Your task to perform on an android device: create a new album in the google photos Image 0: 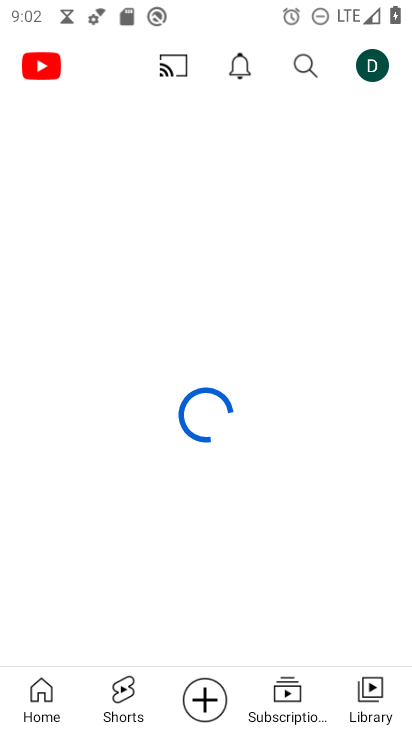
Step 0: press home button
Your task to perform on an android device: create a new album in the google photos Image 1: 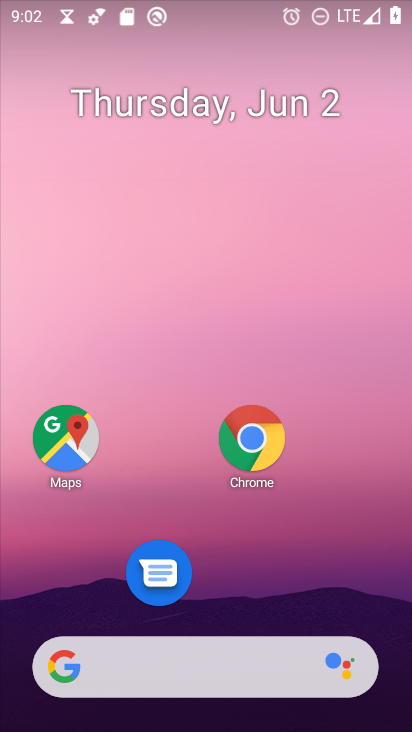
Step 1: drag from (142, 662) to (271, 131)
Your task to perform on an android device: create a new album in the google photos Image 2: 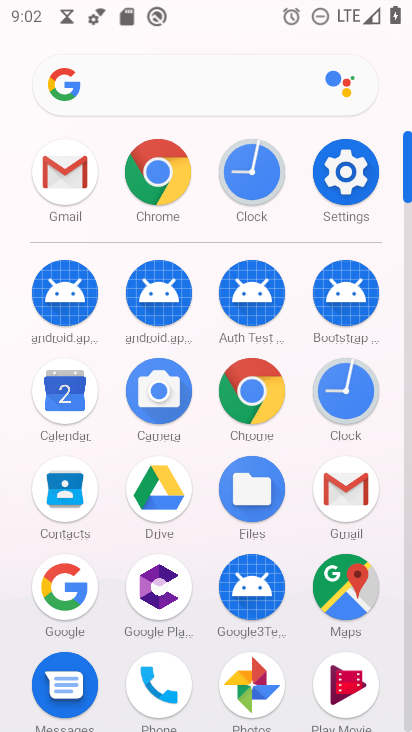
Step 2: click (261, 678)
Your task to perform on an android device: create a new album in the google photos Image 3: 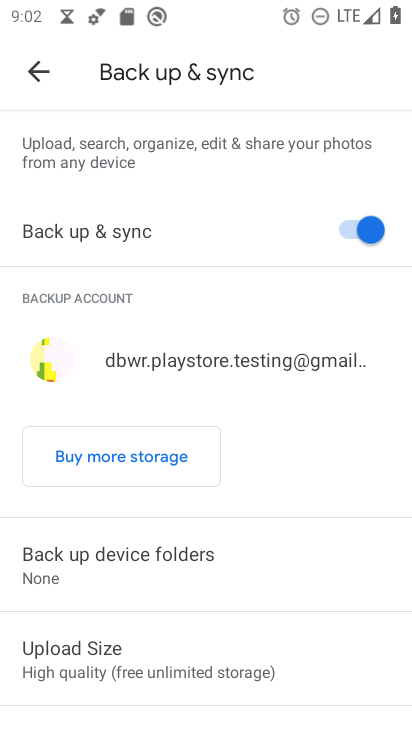
Step 3: click (40, 77)
Your task to perform on an android device: create a new album in the google photos Image 4: 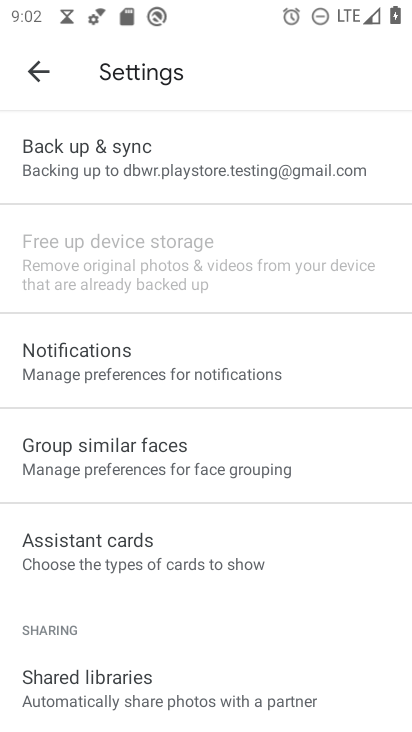
Step 4: click (40, 77)
Your task to perform on an android device: create a new album in the google photos Image 5: 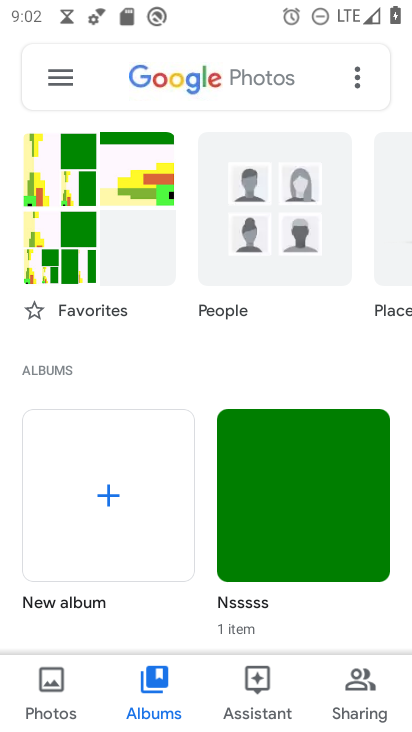
Step 5: click (105, 490)
Your task to perform on an android device: create a new album in the google photos Image 6: 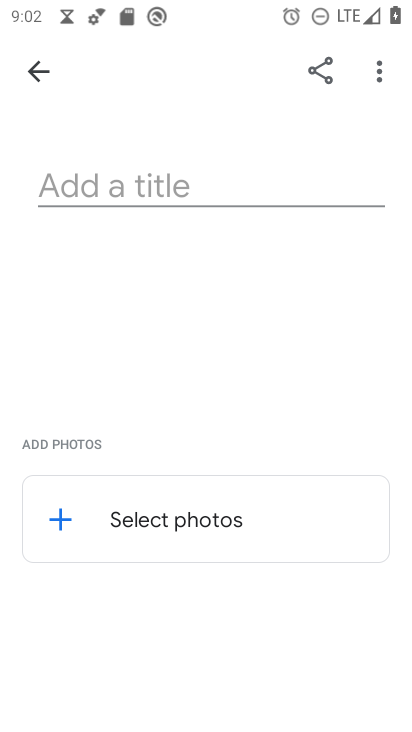
Step 6: click (145, 515)
Your task to perform on an android device: create a new album in the google photos Image 7: 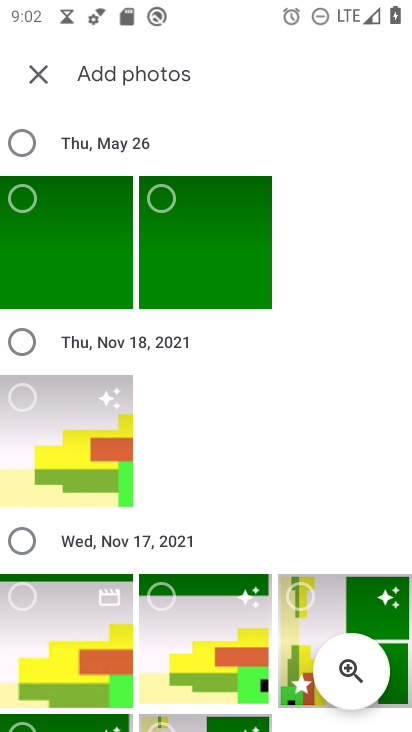
Step 7: click (45, 421)
Your task to perform on an android device: create a new album in the google photos Image 8: 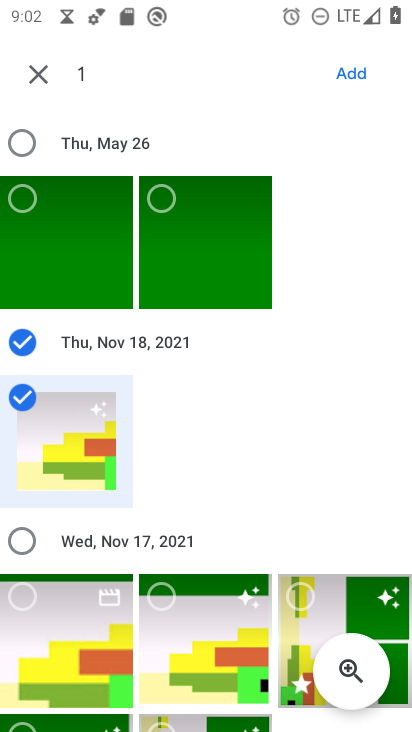
Step 8: click (49, 247)
Your task to perform on an android device: create a new album in the google photos Image 9: 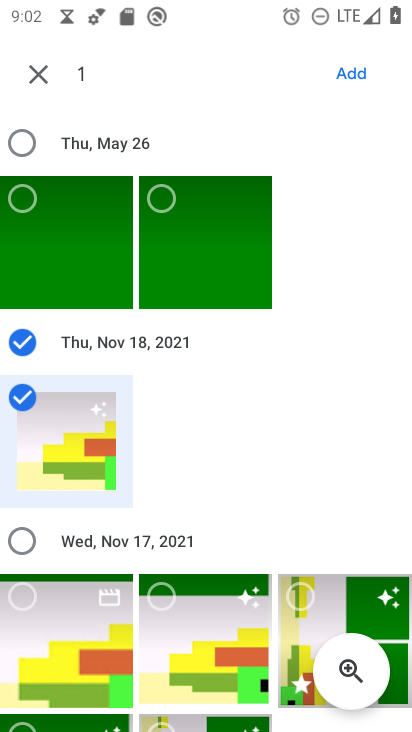
Step 9: click (178, 244)
Your task to perform on an android device: create a new album in the google photos Image 10: 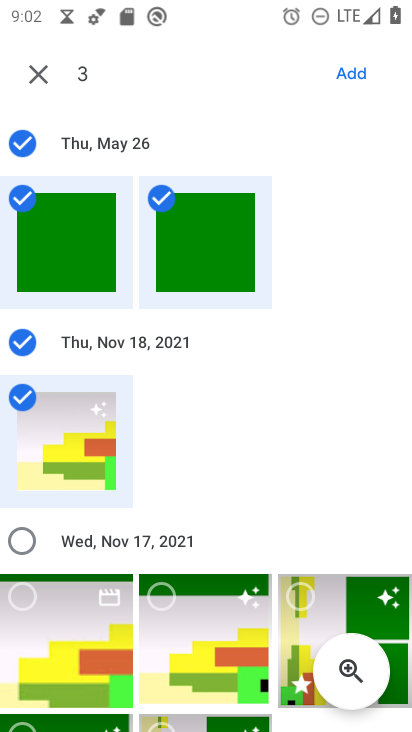
Step 10: click (359, 73)
Your task to perform on an android device: create a new album in the google photos Image 11: 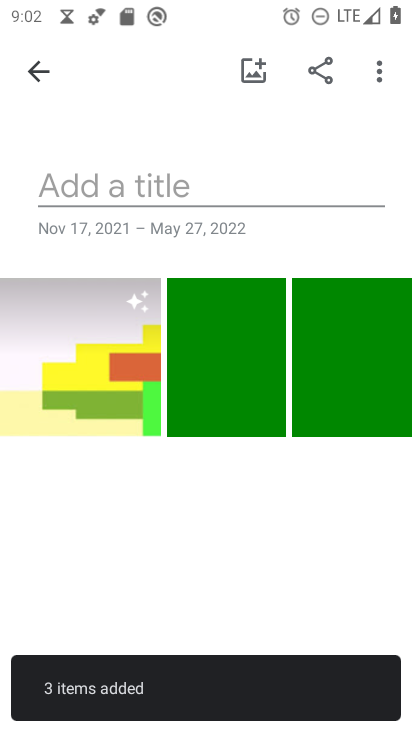
Step 11: task complete